Your task to perform on an android device: Show the shopping cart on newegg.com. Search for "bose soundlink" on newegg.com, select the first entry, and add it to the cart. Image 0: 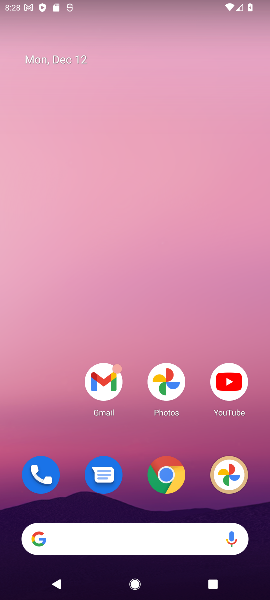
Step 0: click (166, 473)
Your task to perform on an android device: Show the shopping cart on newegg.com. Search for "bose soundlink" on newegg.com, select the first entry, and add it to the cart. Image 1: 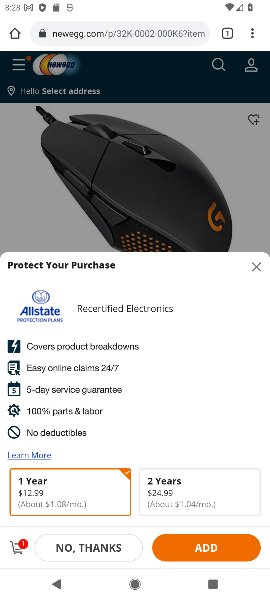
Step 1: click (169, 29)
Your task to perform on an android device: Show the shopping cart on newegg.com. Search for "bose soundlink" on newegg.com, select the first entry, and add it to the cart. Image 2: 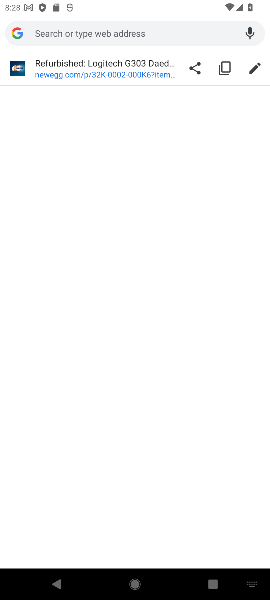
Step 2: type "newegg.com"
Your task to perform on an android device: Show the shopping cart on newegg.com. Search for "bose soundlink" on newegg.com, select the first entry, and add it to the cart. Image 3: 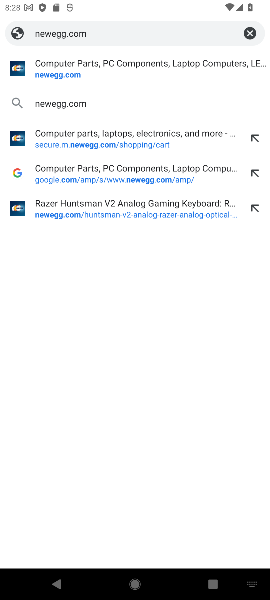
Step 3: click (75, 103)
Your task to perform on an android device: Show the shopping cart on newegg.com. Search for "bose soundlink" on newegg.com, select the first entry, and add it to the cart. Image 4: 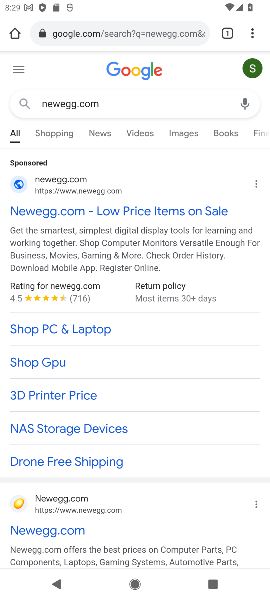
Step 4: click (48, 529)
Your task to perform on an android device: Show the shopping cart on newegg.com. Search for "bose soundlink" on newegg.com, select the first entry, and add it to the cart. Image 5: 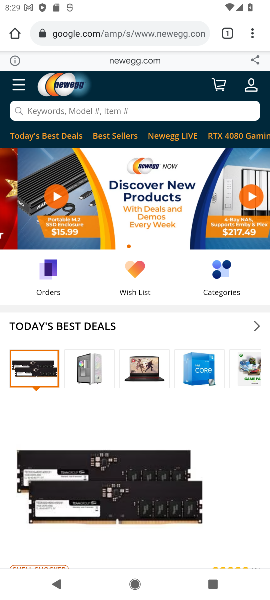
Step 5: click (217, 82)
Your task to perform on an android device: Show the shopping cart on newegg.com. Search for "bose soundlink" on newegg.com, select the first entry, and add it to the cart. Image 6: 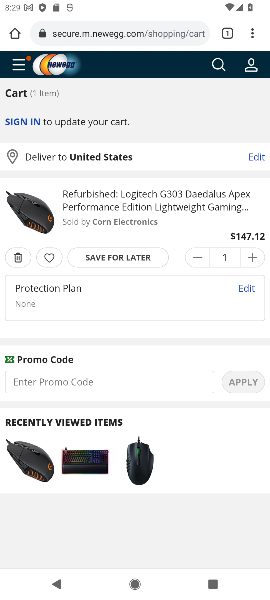
Step 6: click (216, 65)
Your task to perform on an android device: Show the shopping cart on newegg.com. Search for "bose soundlink" on newegg.com, select the first entry, and add it to the cart. Image 7: 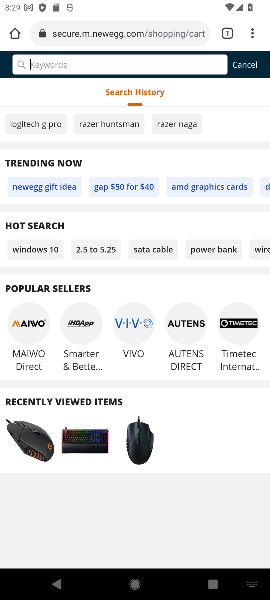
Step 7: type "bose soundlink"
Your task to perform on an android device: Show the shopping cart on newegg.com. Search for "bose soundlink" on newegg.com, select the first entry, and add it to the cart. Image 8: 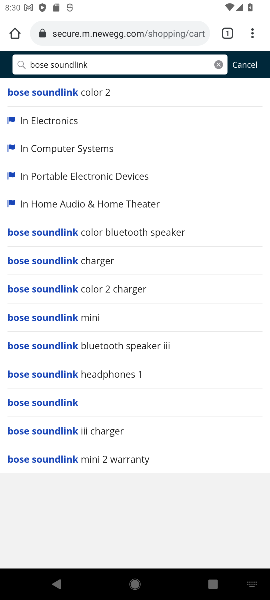
Step 8: click (21, 400)
Your task to perform on an android device: Show the shopping cart on newegg.com. Search for "bose soundlink" on newegg.com, select the first entry, and add it to the cart. Image 9: 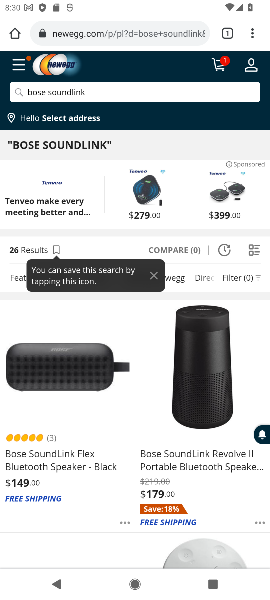
Step 9: click (31, 460)
Your task to perform on an android device: Show the shopping cart on newegg.com. Search for "bose soundlink" on newegg.com, select the first entry, and add it to the cart. Image 10: 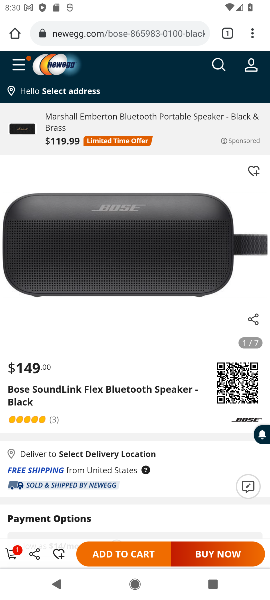
Step 10: click (99, 553)
Your task to perform on an android device: Show the shopping cart on newegg.com. Search for "bose soundlink" on newegg.com, select the first entry, and add it to the cart. Image 11: 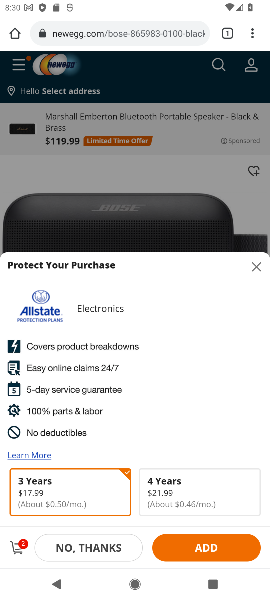
Step 11: task complete